Your task to perform on an android device: check data usage Image 0: 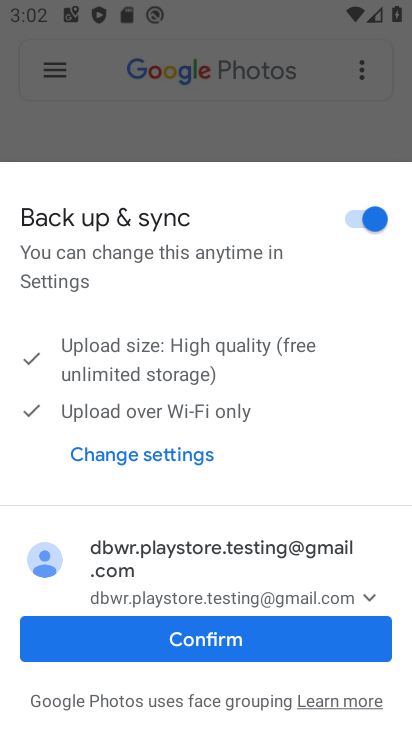
Step 0: press home button
Your task to perform on an android device: check data usage Image 1: 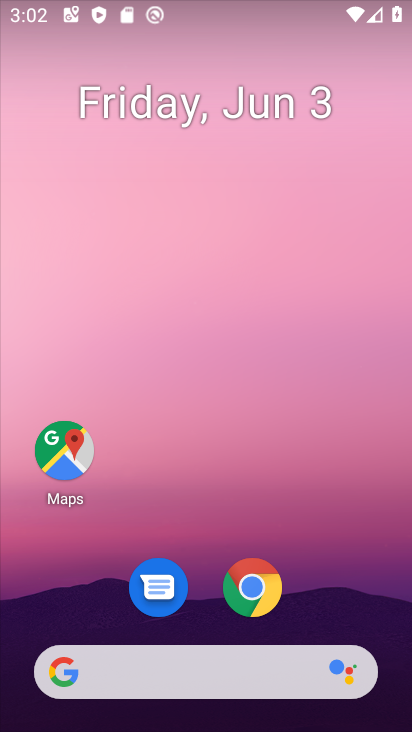
Step 1: drag from (228, 634) to (216, 73)
Your task to perform on an android device: check data usage Image 2: 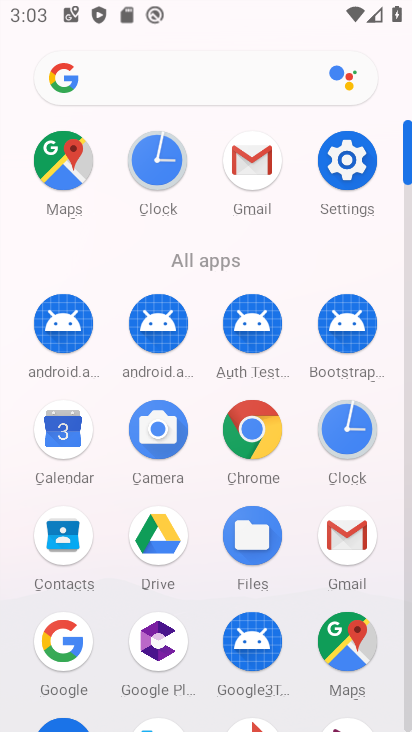
Step 2: click (348, 164)
Your task to perform on an android device: check data usage Image 3: 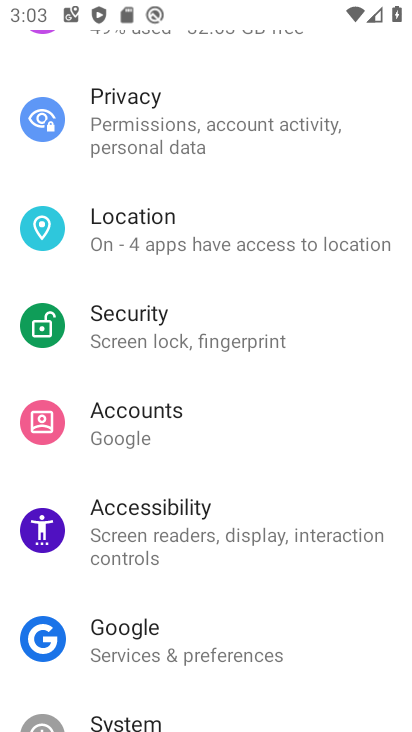
Step 3: drag from (222, 153) to (261, 571)
Your task to perform on an android device: check data usage Image 4: 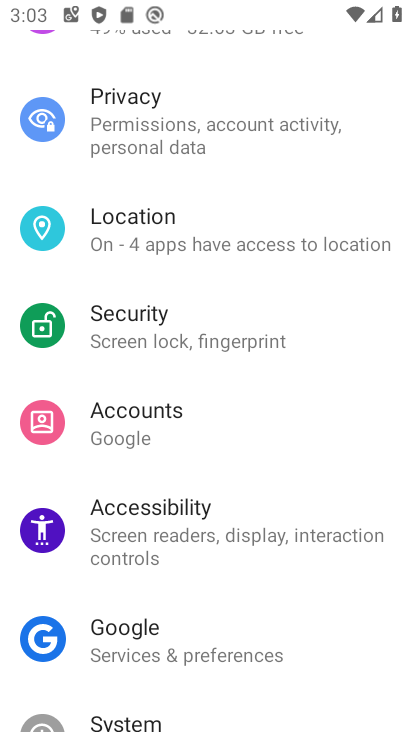
Step 4: drag from (210, 67) to (221, 485)
Your task to perform on an android device: check data usage Image 5: 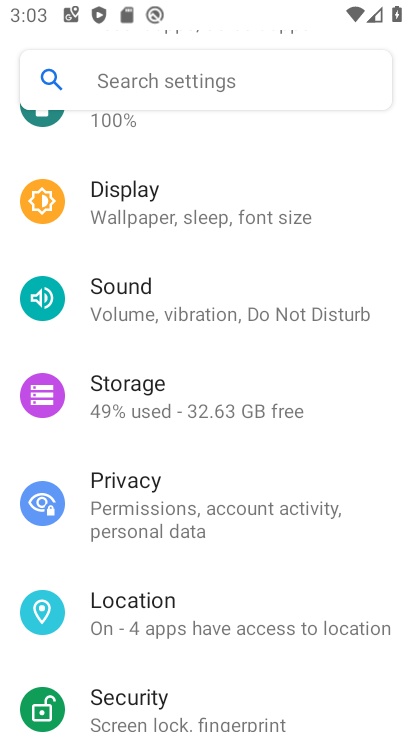
Step 5: drag from (245, 178) to (290, 514)
Your task to perform on an android device: check data usage Image 6: 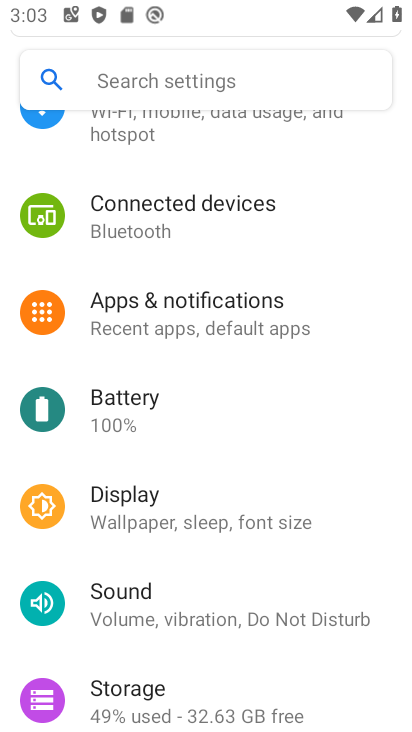
Step 6: drag from (243, 196) to (275, 505)
Your task to perform on an android device: check data usage Image 7: 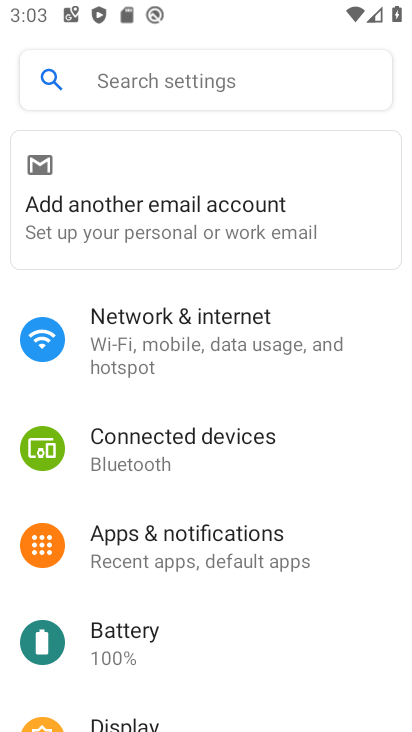
Step 7: click (201, 330)
Your task to perform on an android device: check data usage Image 8: 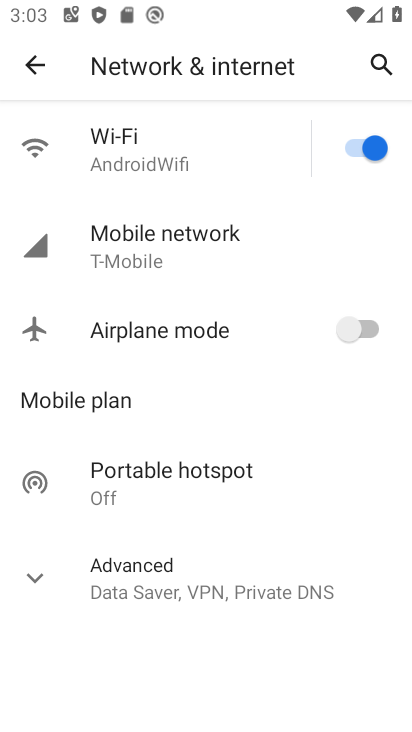
Step 8: click (136, 246)
Your task to perform on an android device: check data usage Image 9: 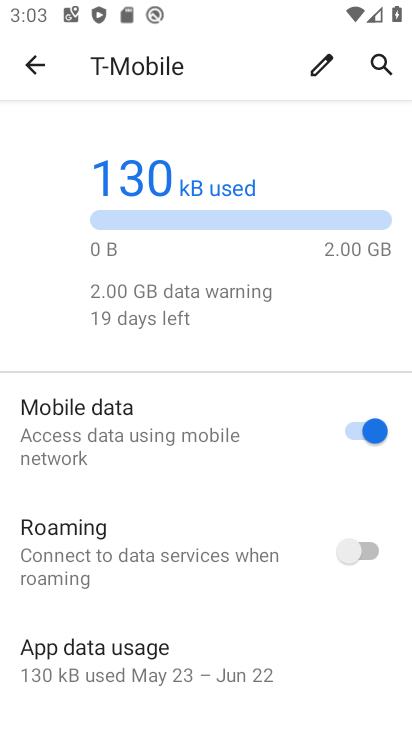
Step 9: click (102, 651)
Your task to perform on an android device: check data usage Image 10: 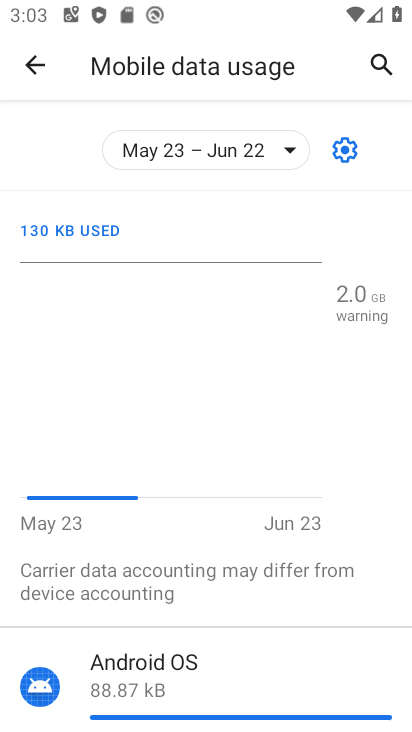
Step 10: task complete